Your task to perform on an android device: Open CNN.com Image 0: 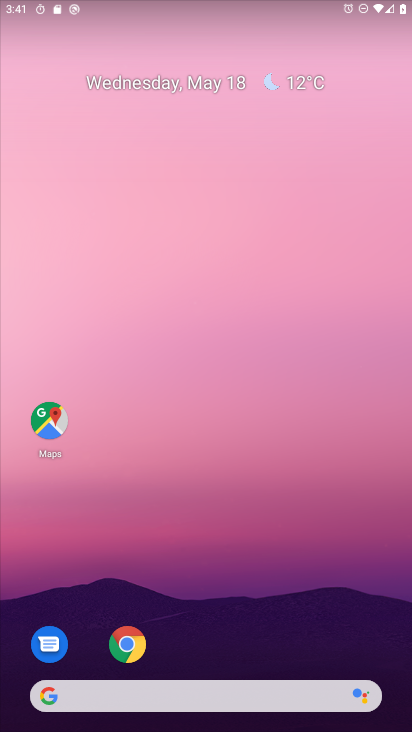
Step 0: click (129, 641)
Your task to perform on an android device: Open CNN.com Image 1: 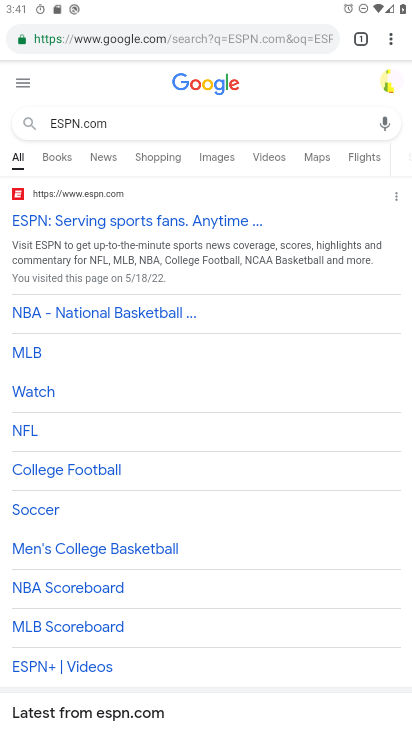
Step 1: click (328, 39)
Your task to perform on an android device: Open CNN.com Image 2: 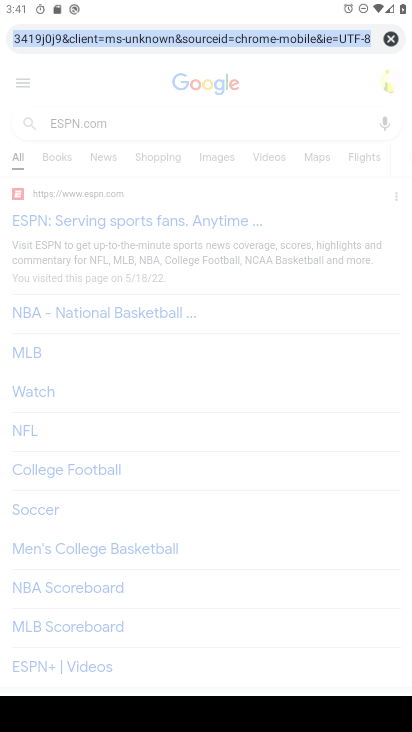
Step 2: click (388, 33)
Your task to perform on an android device: Open CNN.com Image 3: 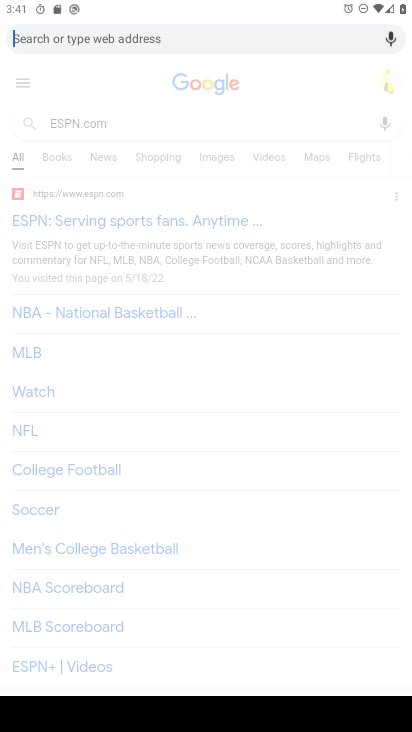
Step 3: type " CNN.com"
Your task to perform on an android device: Open CNN.com Image 4: 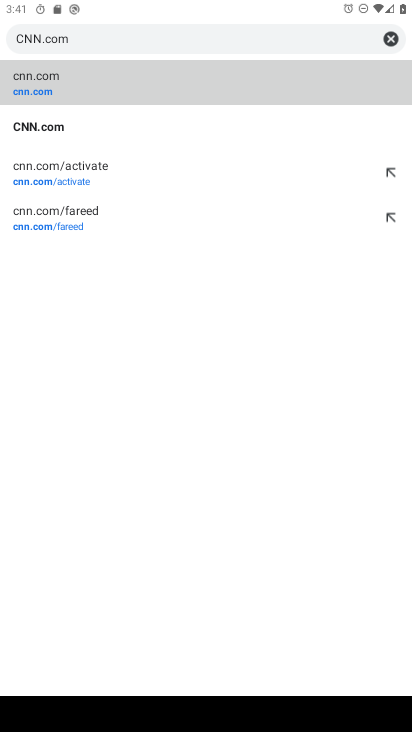
Step 4: click (33, 124)
Your task to perform on an android device: Open CNN.com Image 5: 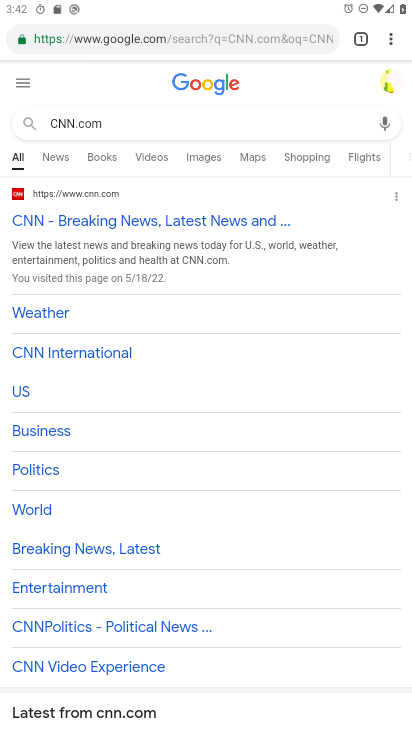
Step 5: task complete